Your task to perform on an android device: open chrome privacy settings Image 0: 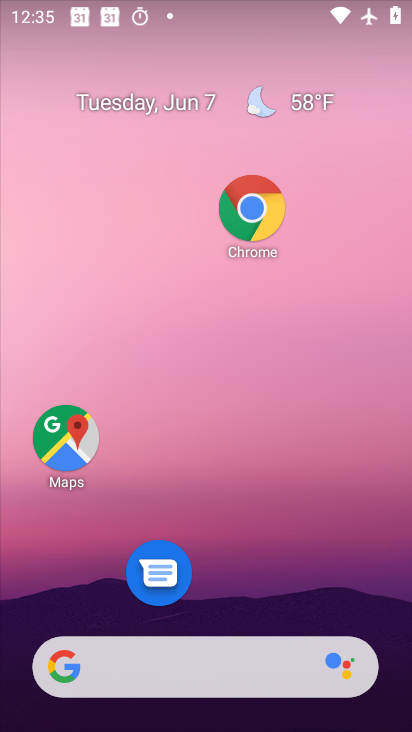
Step 0: click (258, 214)
Your task to perform on an android device: open chrome privacy settings Image 1: 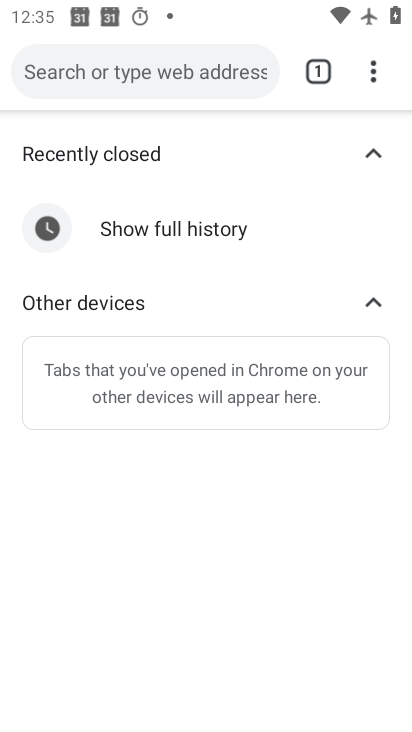
Step 1: click (367, 78)
Your task to perform on an android device: open chrome privacy settings Image 2: 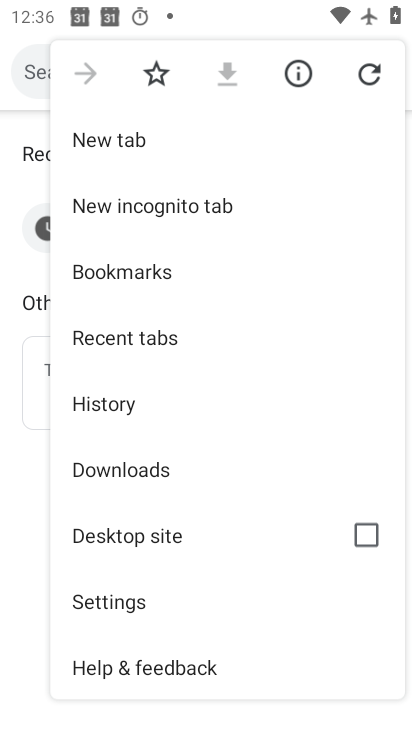
Step 2: click (188, 594)
Your task to perform on an android device: open chrome privacy settings Image 3: 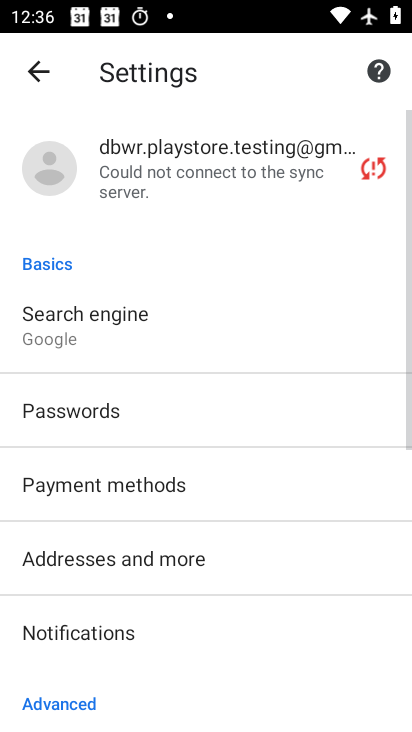
Step 3: drag from (183, 618) to (234, 343)
Your task to perform on an android device: open chrome privacy settings Image 4: 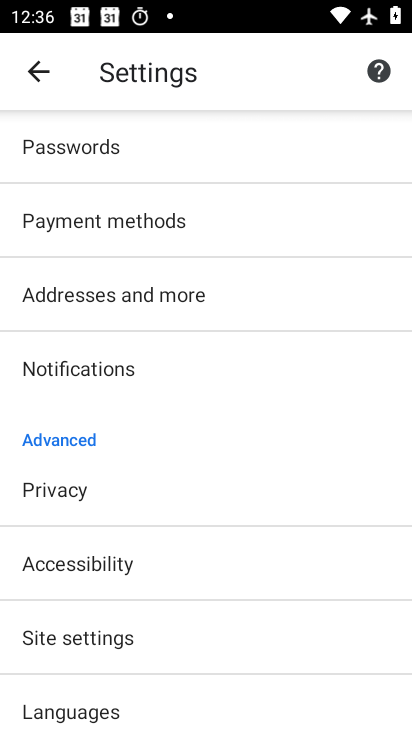
Step 4: click (186, 495)
Your task to perform on an android device: open chrome privacy settings Image 5: 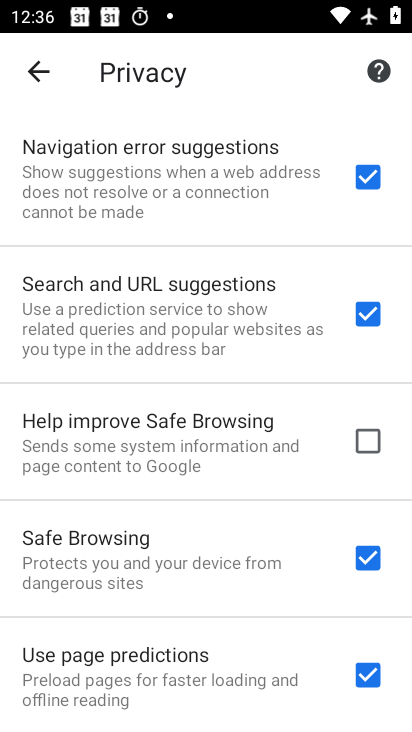
Step 5: task complete